Your task to perform on an android device: open wifi settings Image 0: 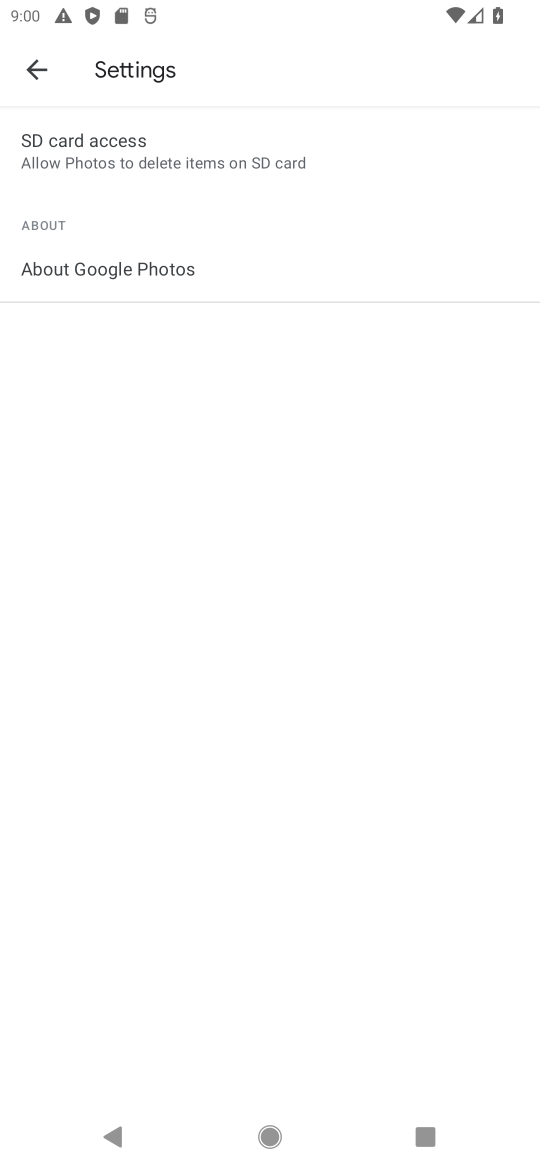
Step 0: drag from (216, 1) to (190, 721)
Your task to perform on an android device: open wifi settings Image 1: 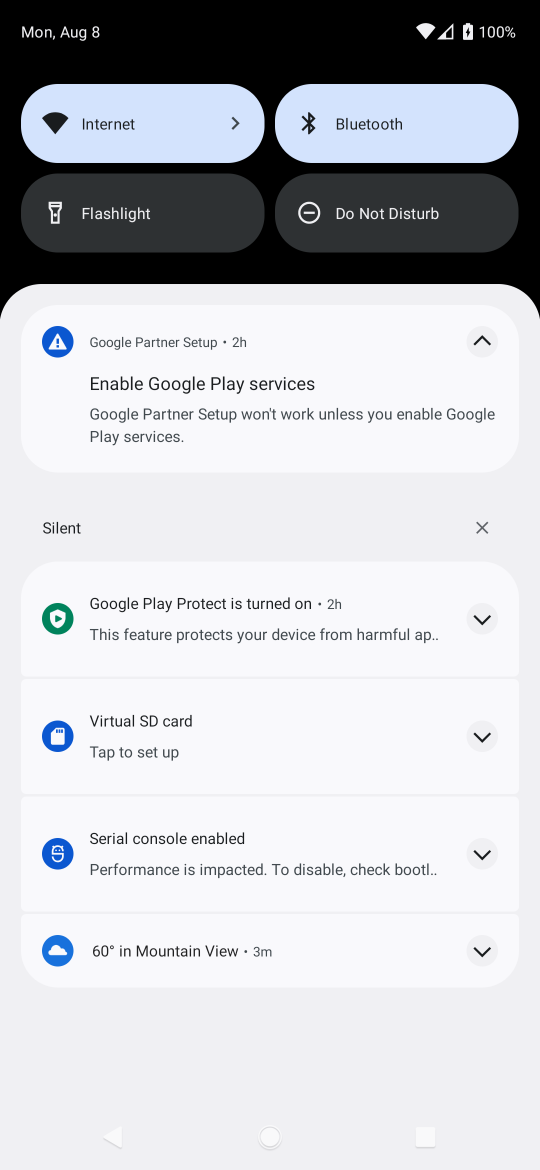
Step 1: click (161, 162)
Your task to perform on an android device: open wifi settings Image 2: 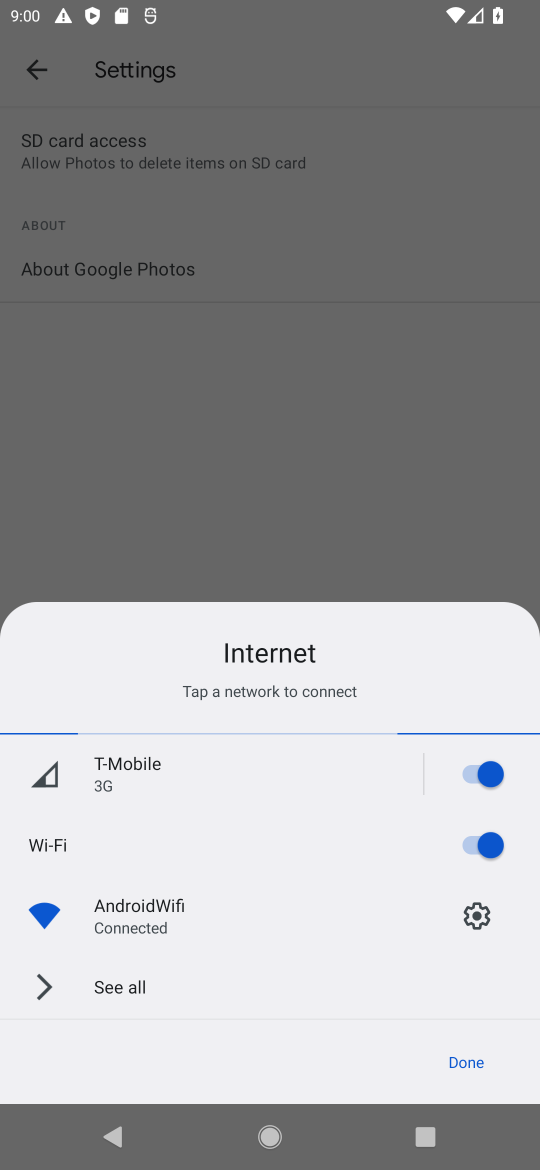
Step 2: click (459, 928)
Your task to perform on an android device: open wifi settings Image 3: 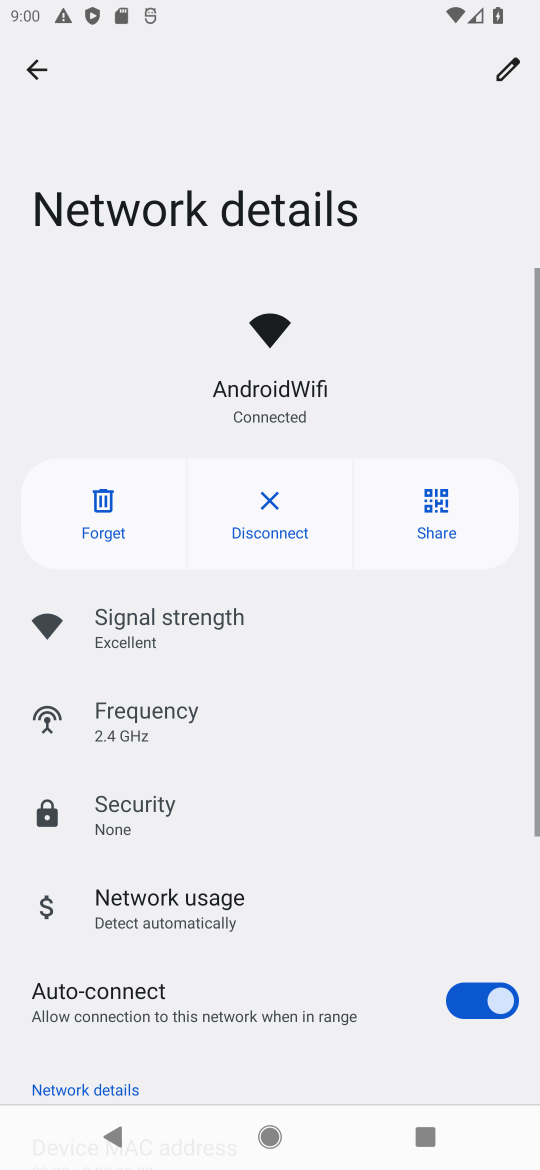
Step 3: click (479, 920)
Your task to perform on an android device: open wifi settings Image 4: 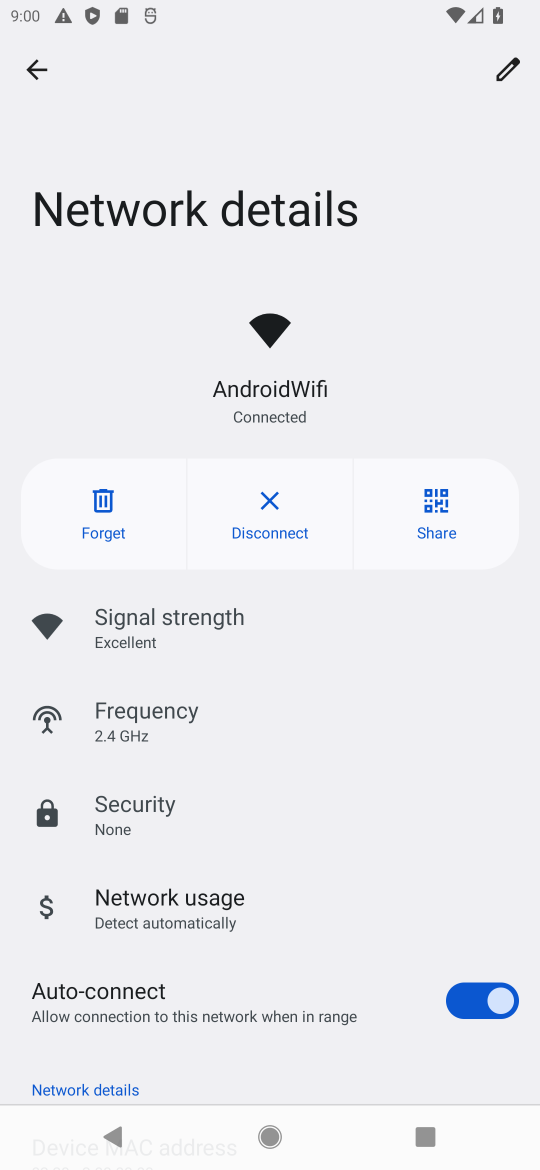
Step 4: task complete